Your task to perform on an android device: toggle notification dots Image 0: 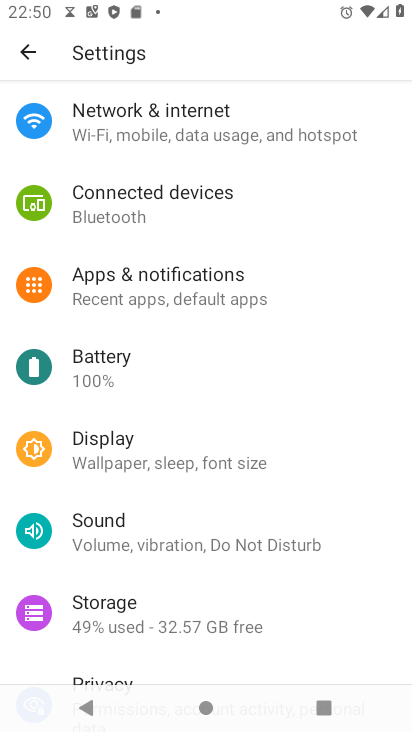
Step 0: drag from (228, 213) to (246, 557)
Your task to perform on an android device: toggle notification dots Image 1: 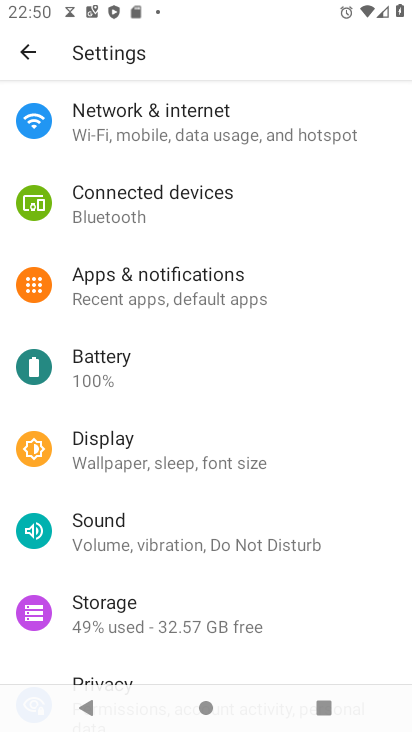
Step 1: click (259, 561)
Your task to perform on an android device: toggle notification dots Image 2: 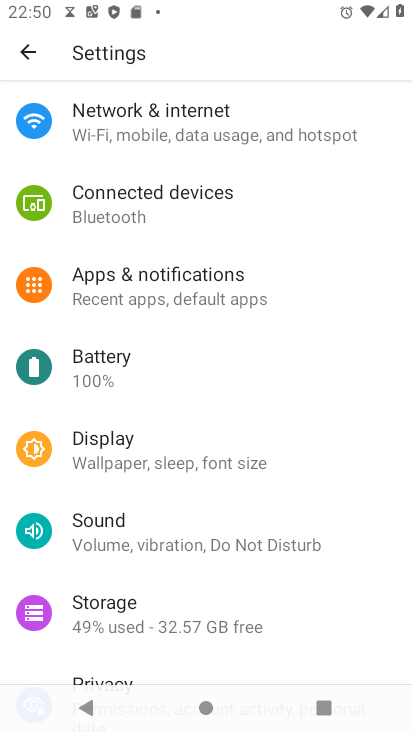
Step 2: press home button
Your task to perform on an android device: toggle notification dots Image 3: 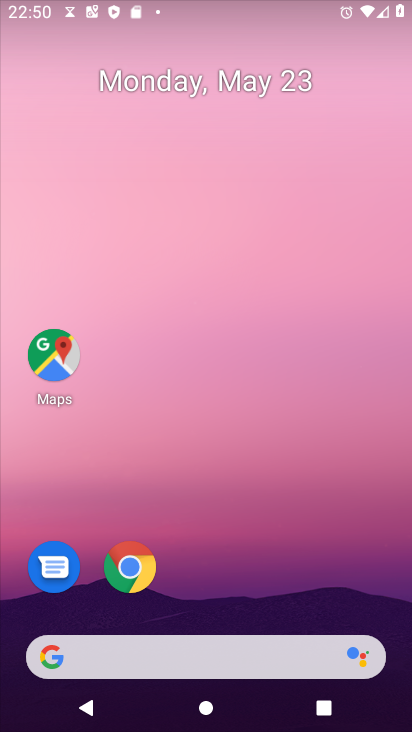
Step 3: drag from (222, 556) to (228, 255)
Your task to perform on an android device: toggle notification dots Image 4: 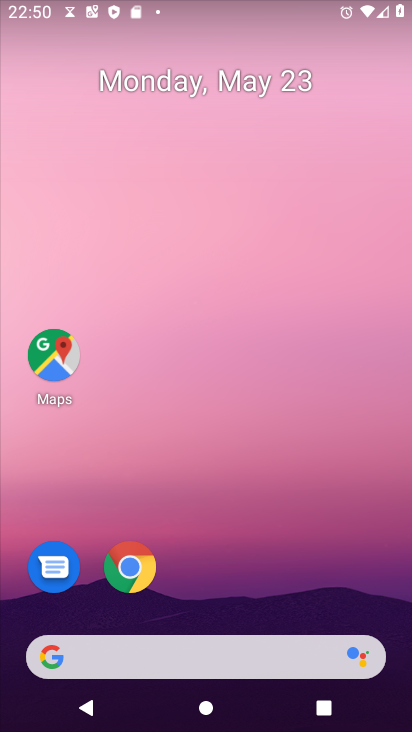
Step 4: drag from (195, 534) to (227, 319)
Your task to perform on an android device: toggle notification dots Image 5: 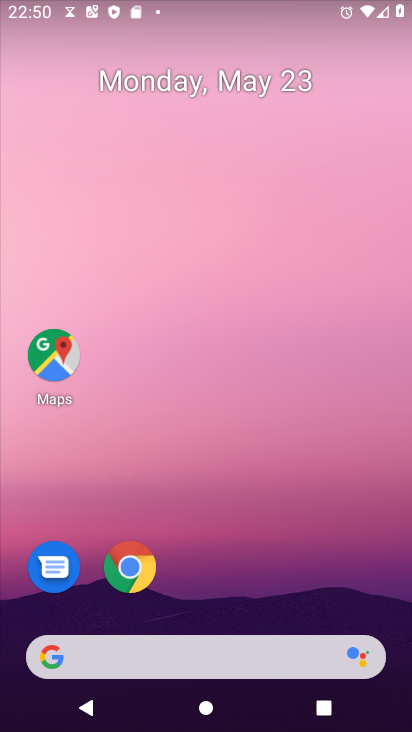
Step 5: drag from (220, 562) to (226, 244)
Your task to perform on an android device: toggle notification dots Image 6: 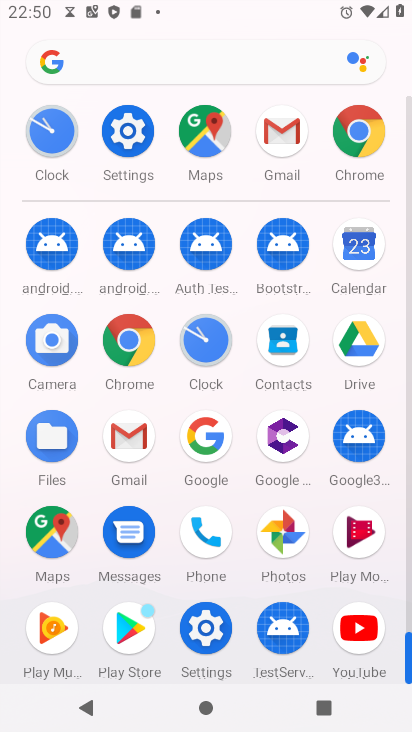
Step 6: click (118, 119)
Your task to perform on an android device: toggle notification dots Image 7: 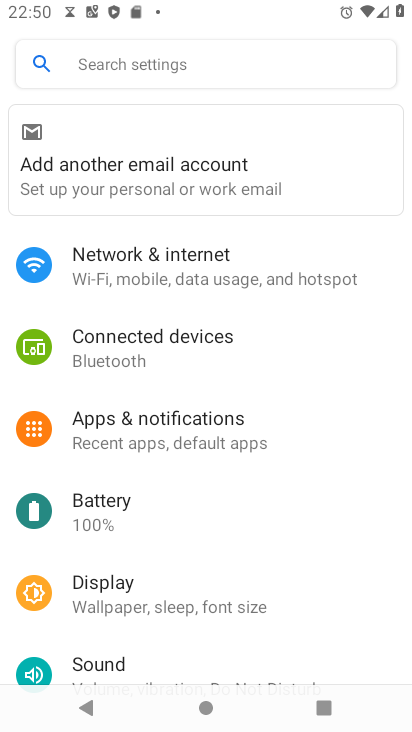
Step 7: click (110, 52)
Your task to perform on an android device: toggle notification dots Image 8: 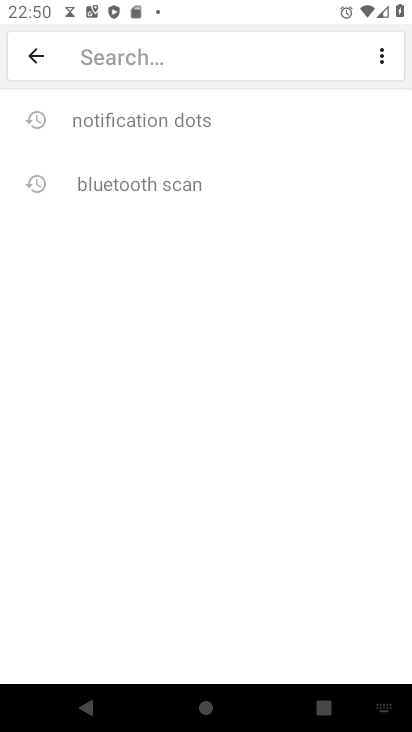
Step 8: type " notification dots"
Your task to perform on an android device: toggle notification dots Image 9: 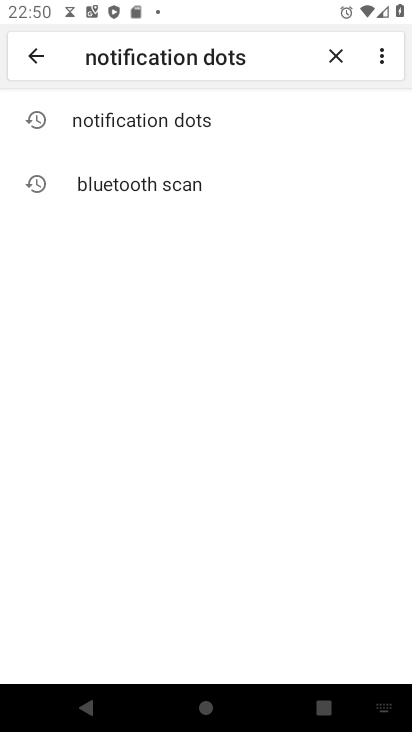
Step 9: click (220, 121)
Your task to perform on an android device: toggle notification dots Image 10: 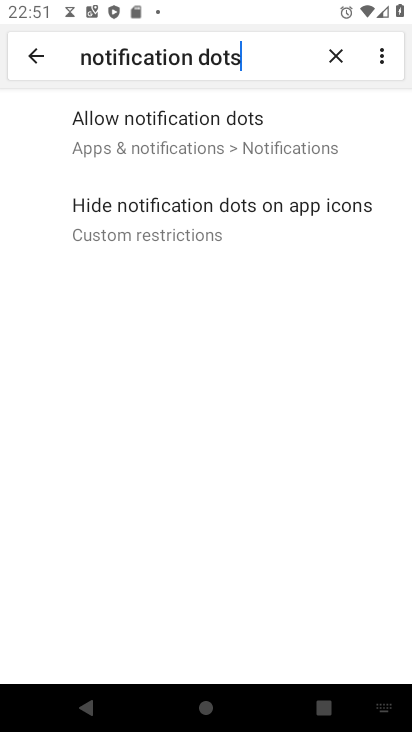
Step 10: click (224, 109)
Your task to perform on an android device: toggle notification dots Image 11: 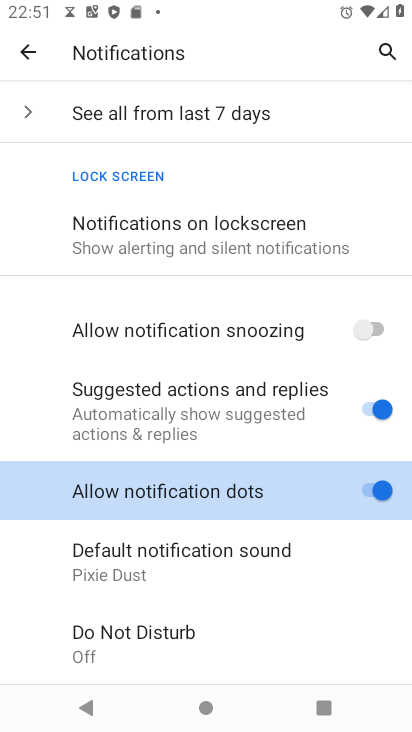
Step 11: click (369, 461)
Your task to perform on an android device: toggle notification dots Image 12: 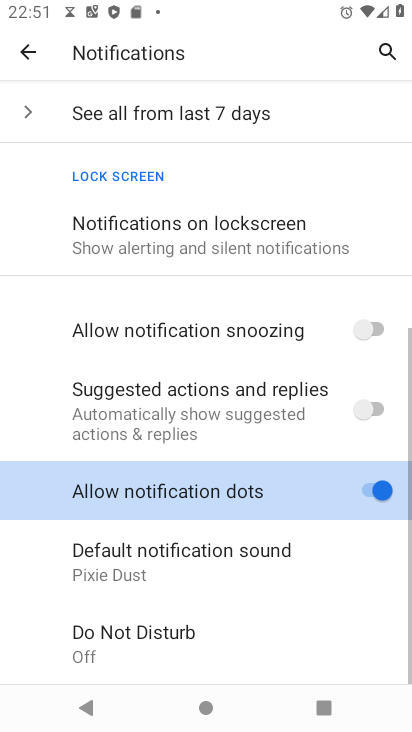
Step 12: click (358, 407)
Your task to perform on an android device: toggle notification dots Image 13: 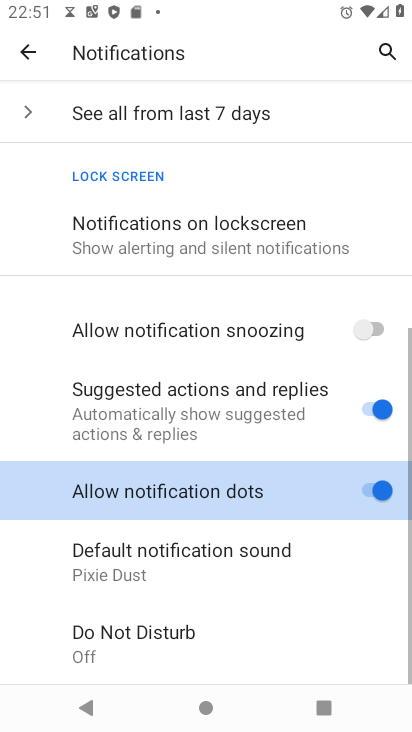
Step 13: click (368, 493)
Your task to perform on an android device: toggle notification dots Image 14: 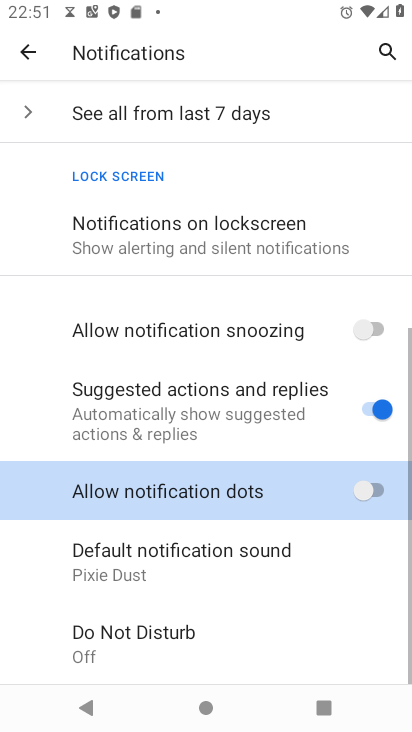
Step 14: task complete